Your task to perform on an android device: toggle improve location accuracy Image 0: 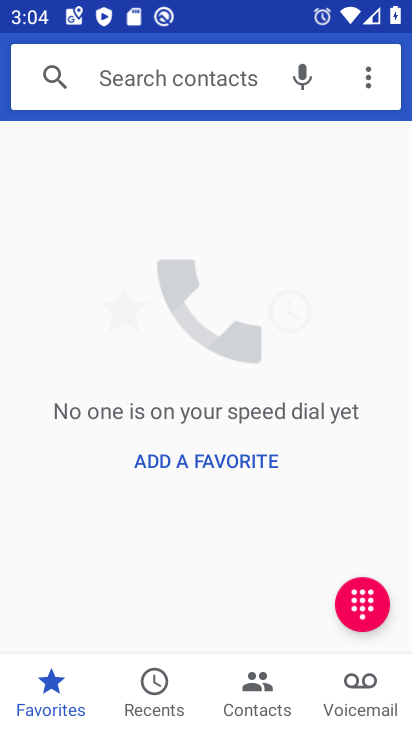
Step 0: press home button
Your task to perform on an android device: toggle improve location accuracy Image 1: 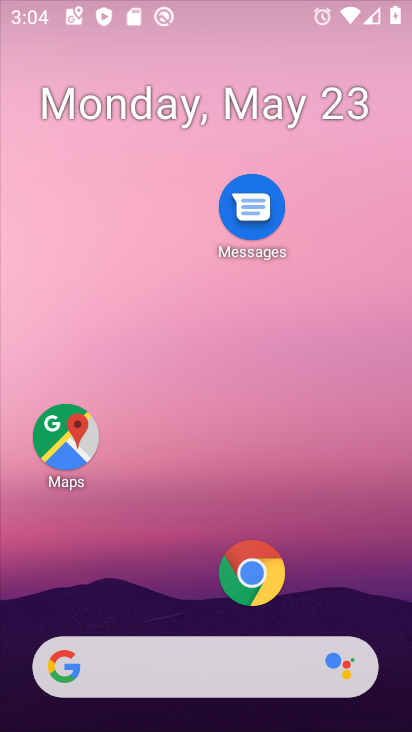
Step 1: drag from (304, 644) to (288, 19)
Your task to perform on an android device: toggle improve location accuracy Image 2: 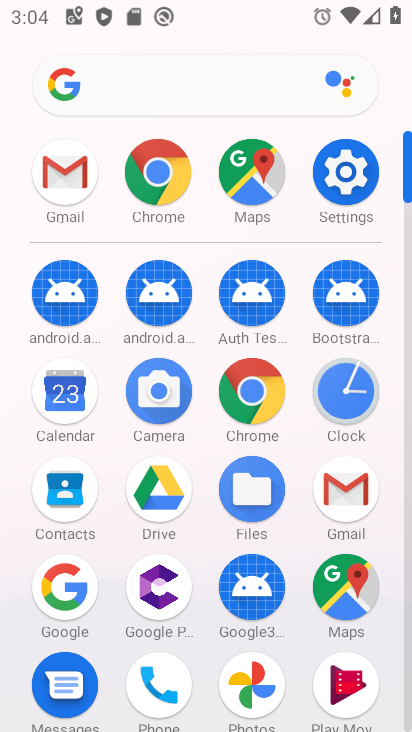
Step 2: click (342, 184)
Your task to perform on an android device: toggle improve location accuracy Image 3: 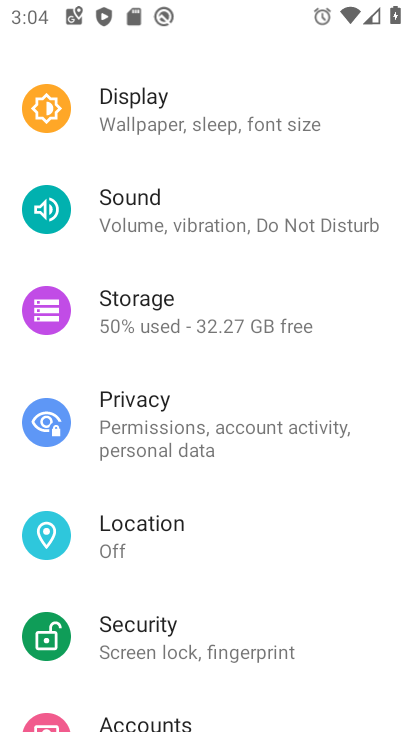
Step 3: click (164, 546)
Your task to perform on an android device: toggle improve location accuracy Image 4: 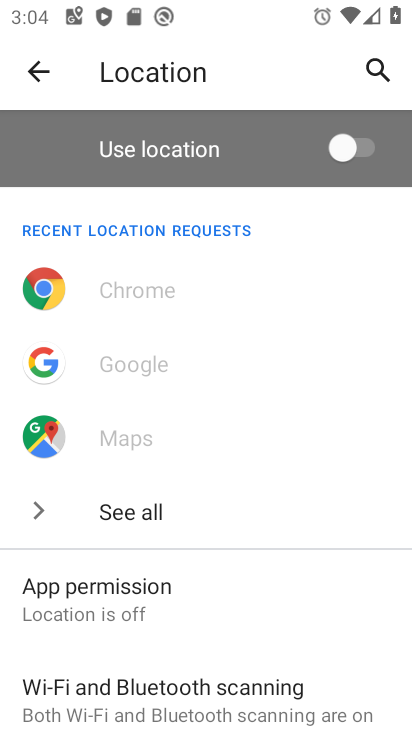
Step 4: click (355, 152)
Your task to perform on an android device: toggle improve location accuracy Image 5: 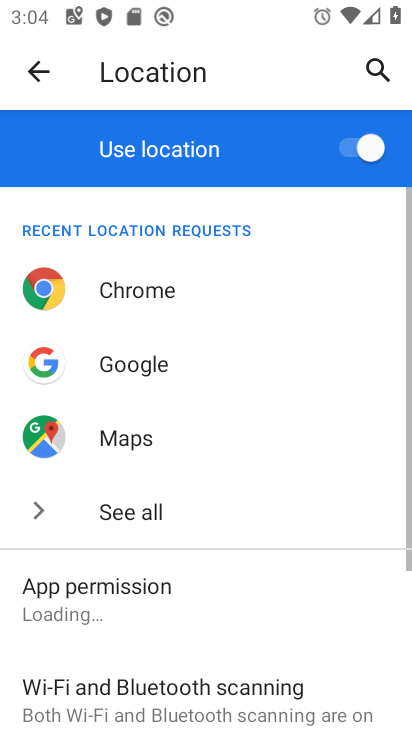
Step 5: click (337, 145)
Your task to perform on an android device: toggle improve location accuracy Image 6: 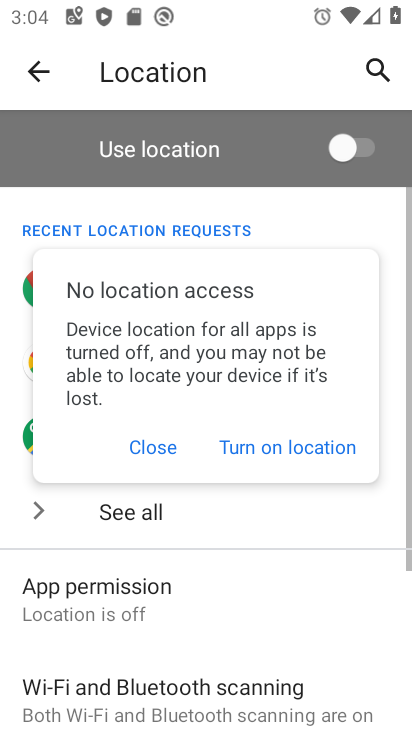
Step 6: drag from (219, 644) to (247, 152)
Your task to perform on an android device: toggle improve location accuracy Image 7: 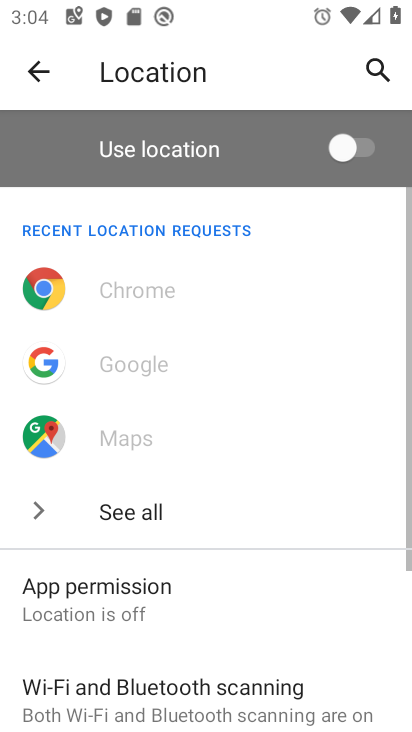
Step 7: click (152, 442)
Your task to perform on an android device: toggle improve location accuracy Image 8: 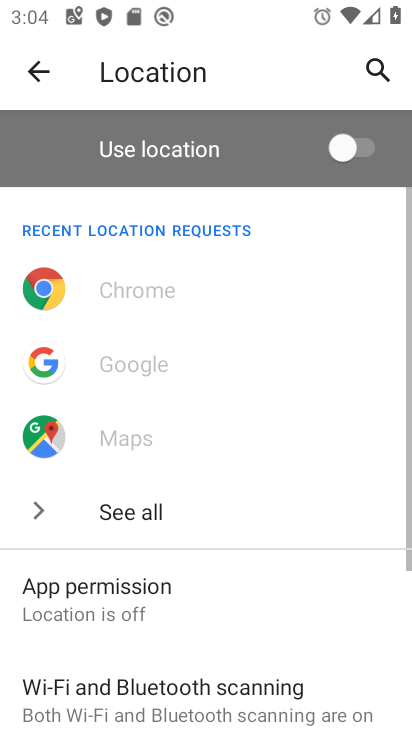
Step 8: drag from (228, 631) to (286, 151)
Your task to perform on an android device: toggle improve location accuracy Image 9: 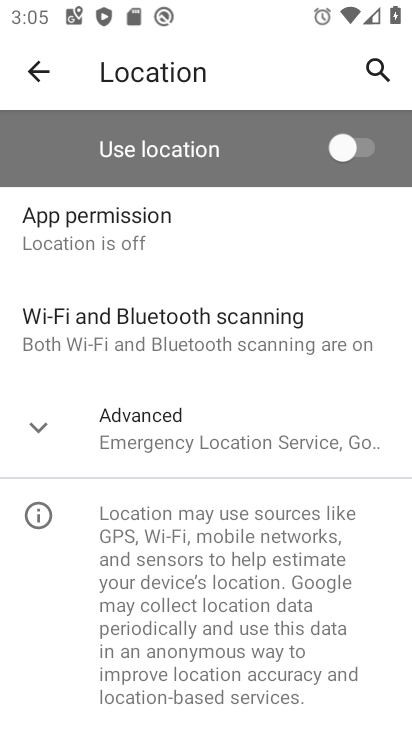
Step 9: click (162, 417)
Your task to perform on an android device: toggle improve location accuracy Image 10: 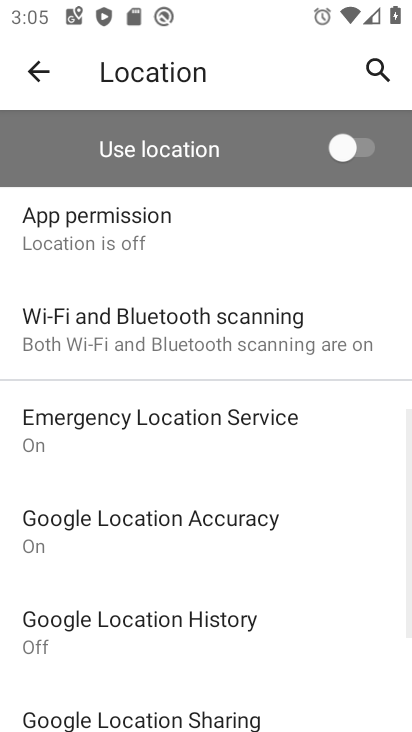
Step 10: click (218, 529)
Your task to perform on an android device: toggle improve location accuracy Image 11: 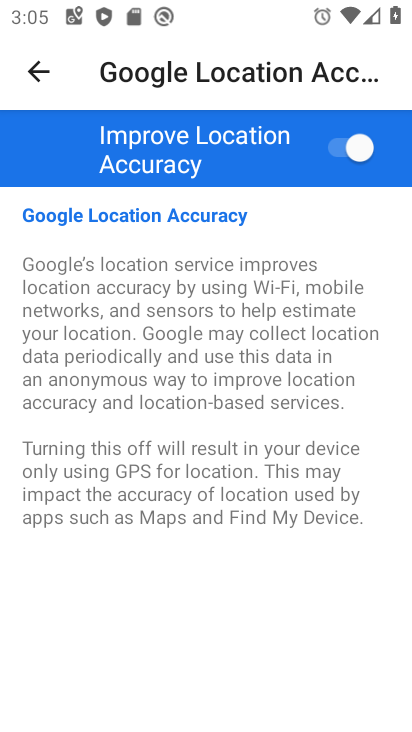
Step 11: click (341, 148)
Your task to perform on an android device: toggle improve location accuracy Image 12: 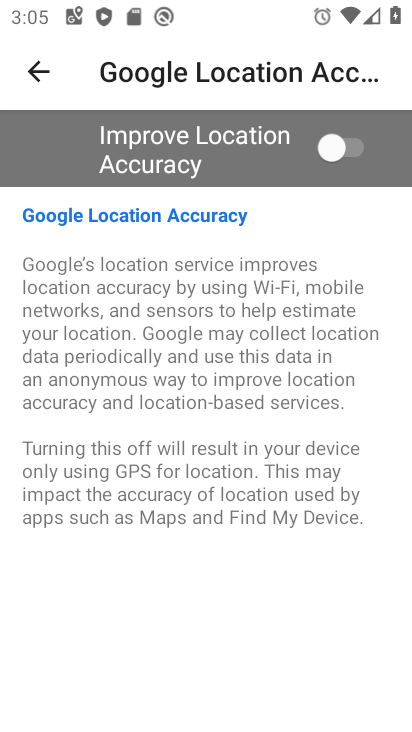
Step 12: task complete